Your task to perform on an android device: Open the calendar and show me this week's events? Image 0: 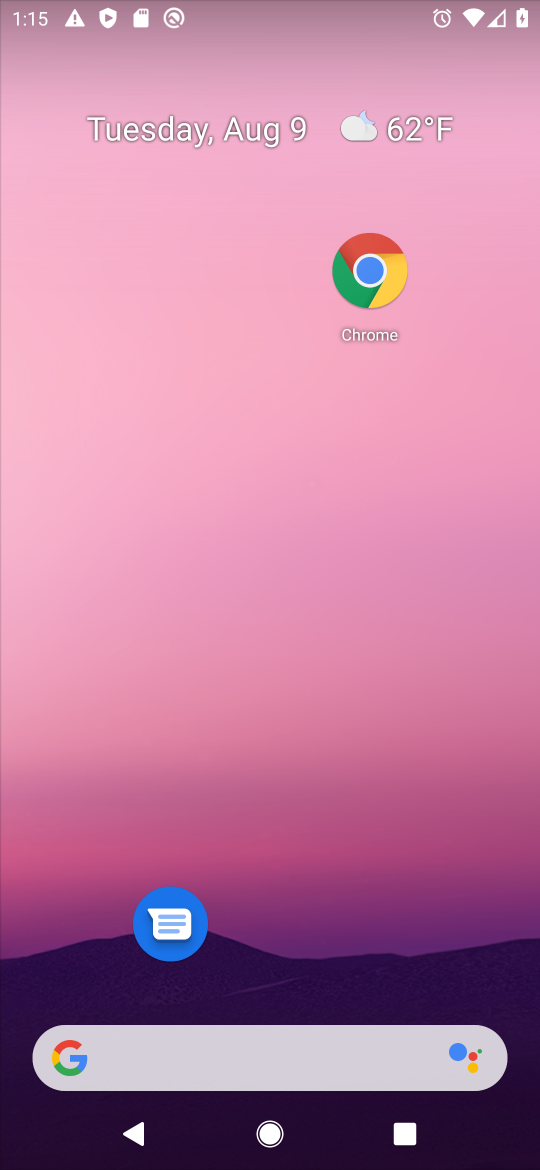
Step 0: drag from (345, 996) to (320, 139)
Your task to perform on an android device: Open the calendar and show me this week's events? Image 1: 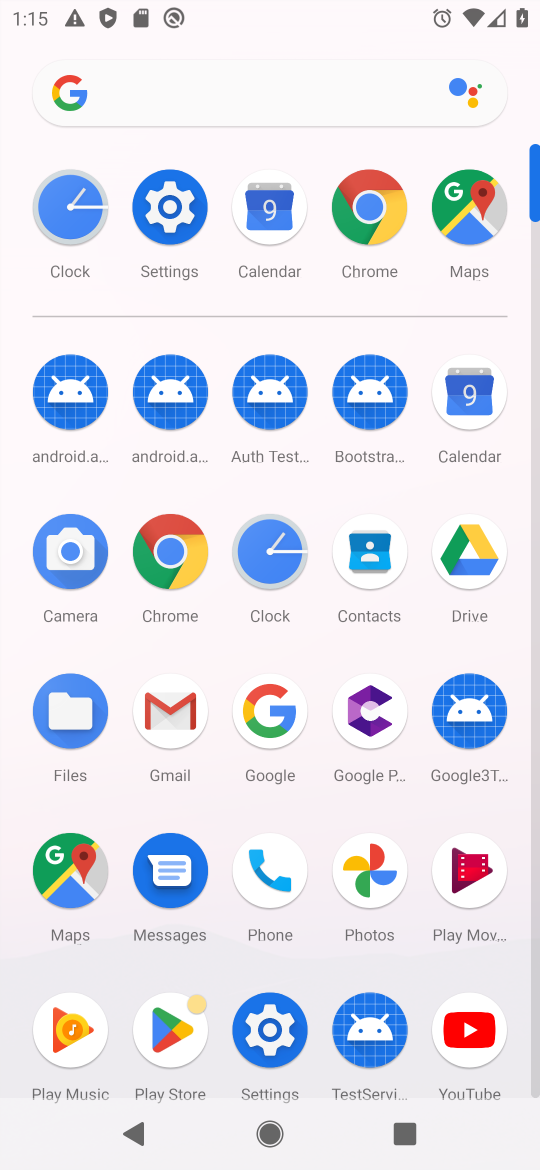
Step 1: click (252, 273)
Your task to perform on an android device: Open the calendar and show me this week's events? Image 2: 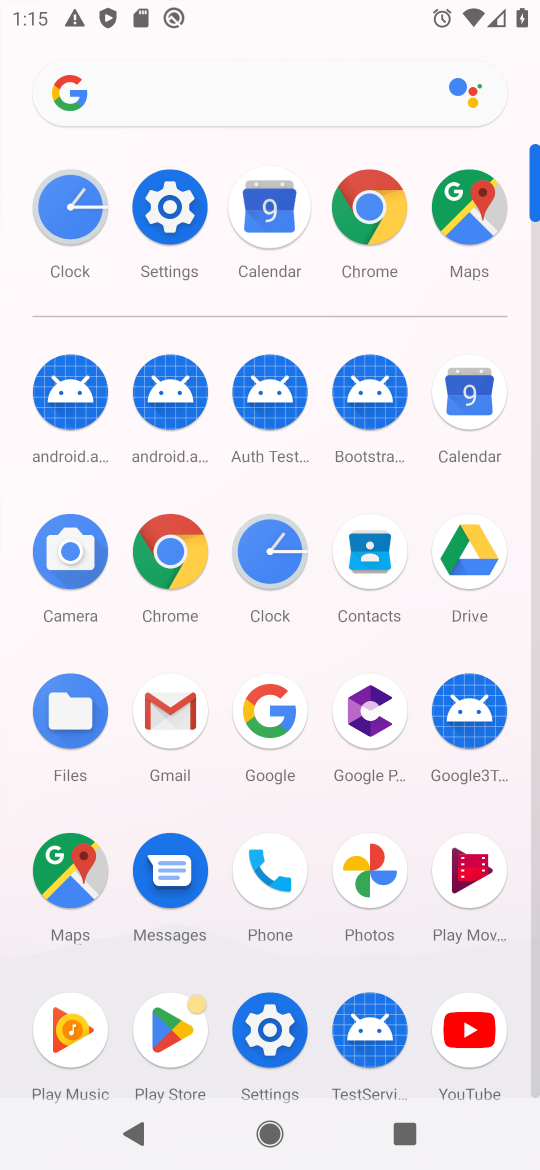
Step 2: task complete